Your task to perform on an android device: Go to notification settings Image 0: 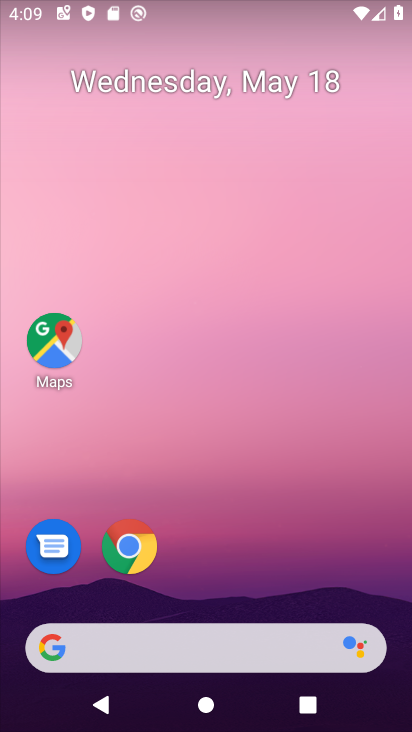
Step 0: drag from (240, 598) to (303, 7)
Your task to perform on an android device: Go to notification settings Image 1: 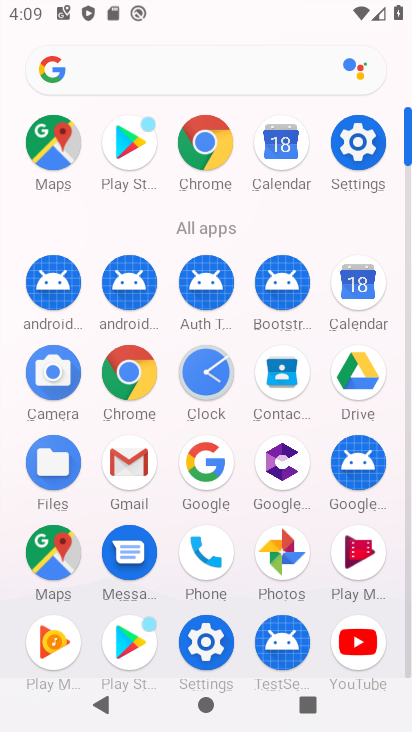
Step 1: click (358, 151)
Your task to perform on an android device: Go to notification settings Image 2: 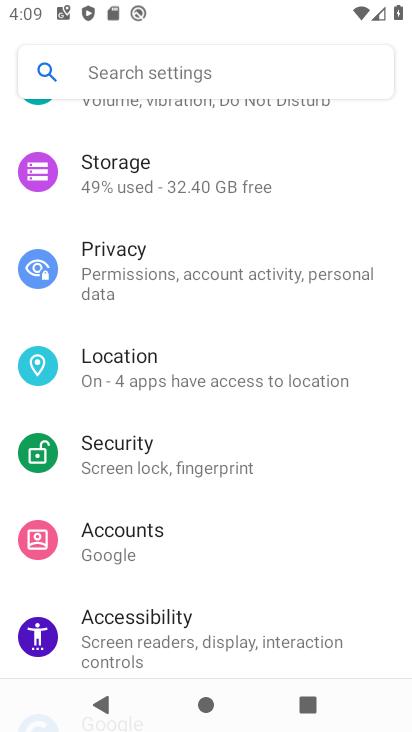
Step 2: drag from (205, 224) to (196, 707)
Your task to perform on an android device: Go to notification settings Image 3: 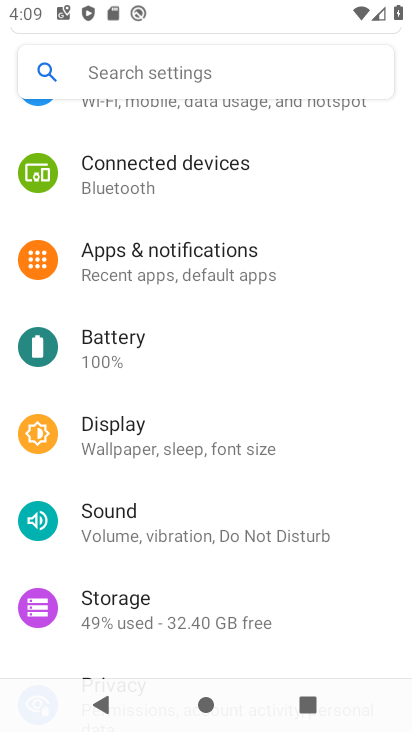
Step 3: click (225, 271)
Your task to perform on an android device: Go to notification settings Image 4: 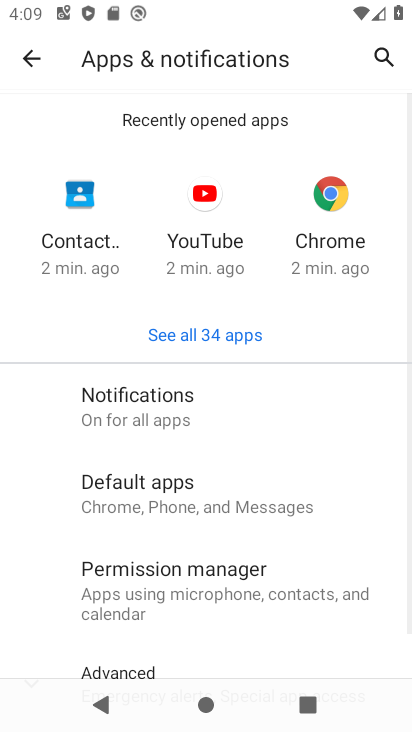
Step 4: click (176, 413)
Your task to perform on an android device: Go to notification settings Image 5: 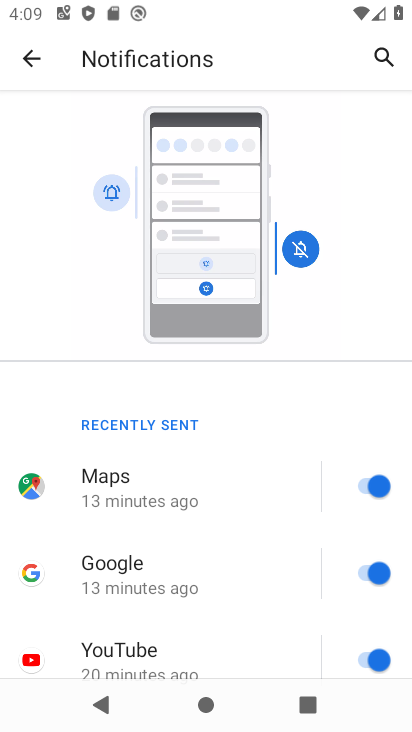
Step 5: task complete